Your task to perform on an android device: open chrome and create a bookmark for the current page Image 0: 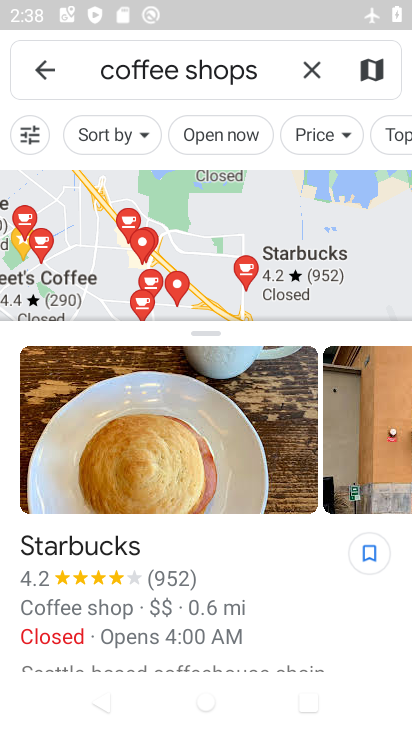
Step 0: press back button
Your task to perform on an android device: open chrome and create a bookmark for the current page Image 1: 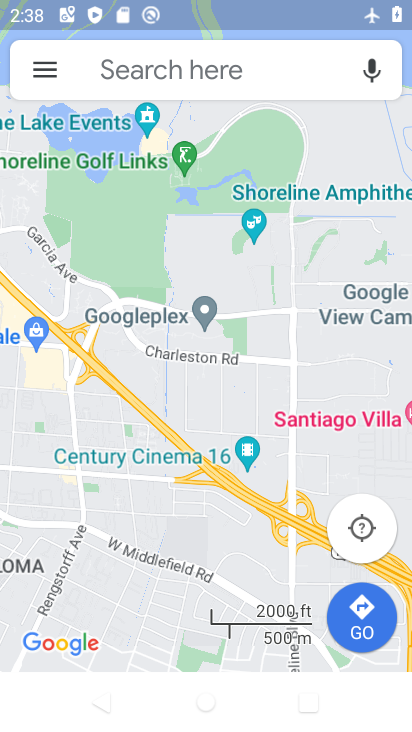
Step 1: press back button
Your task to perform on an android device: open chrome and create a bookmark for the current page Image 2: 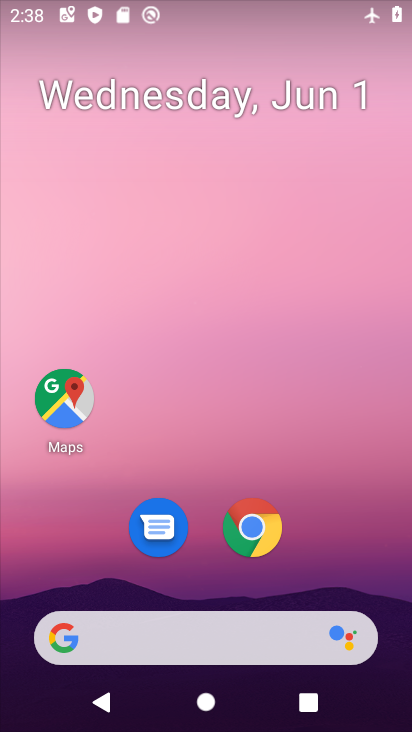
Step 2: click (256, 528)
Your task to perform on an android device: open chrome and create a bookmark for the current page Image 3: 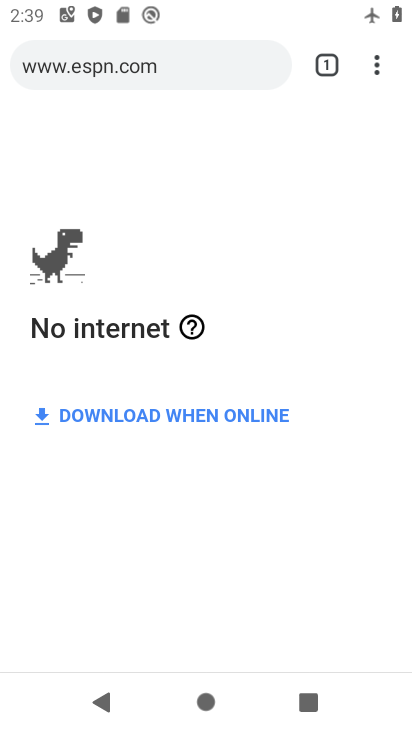
Step 3: click (378, 60)
Your task to perform on an android device: open chrome and create a bookmark for the current page Image 4: 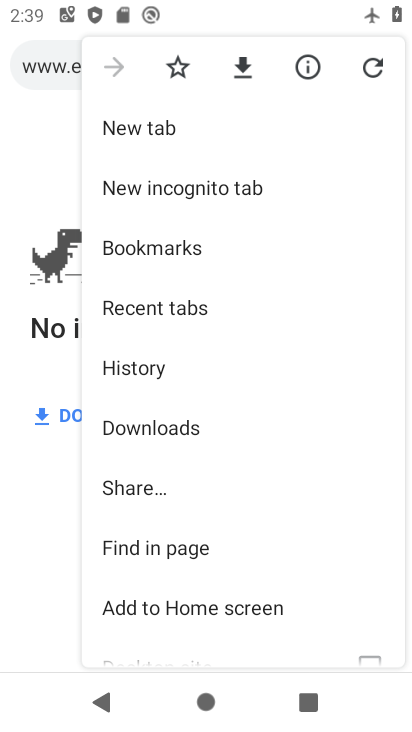
Step 4: click (181, 72)
Your task to perform on an android device: open chrome and create a bookmark for the current page Image 5: 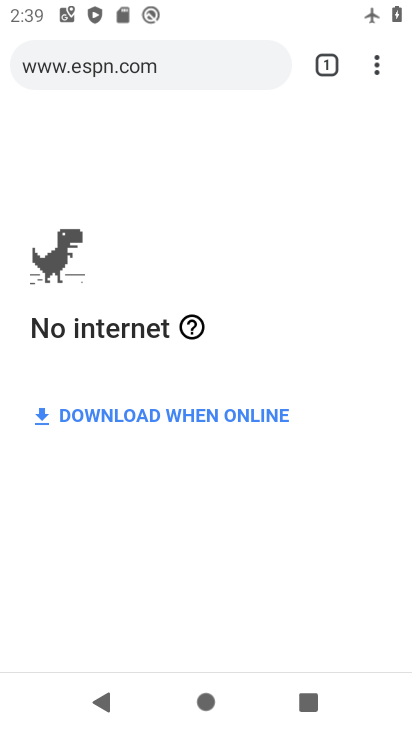
Step 5: task complete